Your task to perform on an android device: check battery use Image 0: 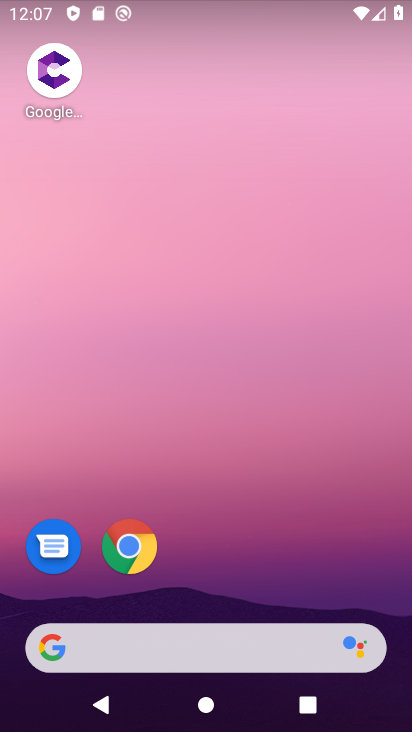
Step 0: drag from (264, 590) to (209, 3)
Your task to perform on an android device: check battery use Image 1: 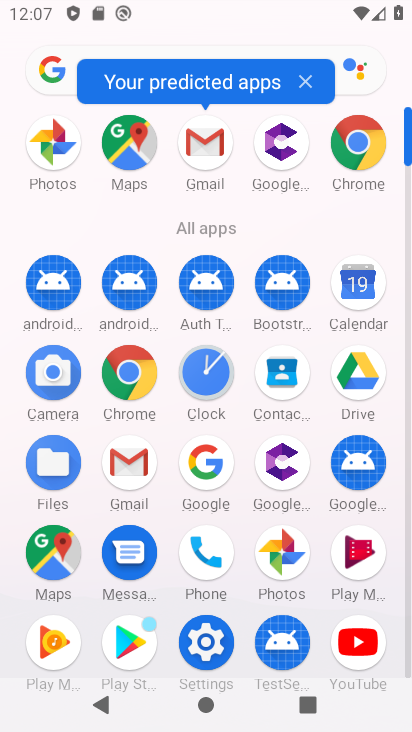
Step 1: click (201, 634)
Your task to perform on an android device: check battery use Image 2: 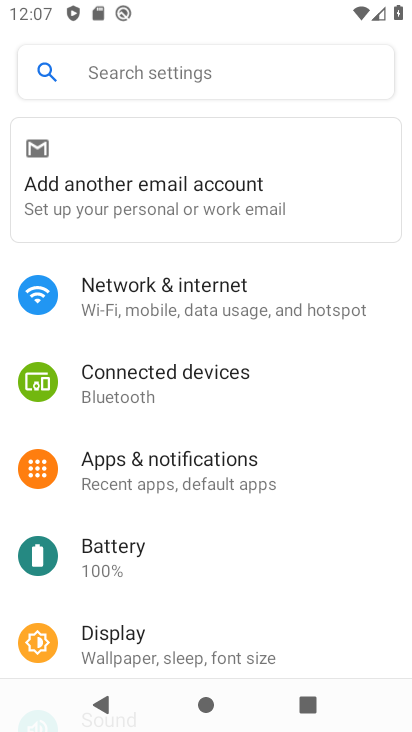
Step 2: click (96, 567)
Your task to perform on an android device: check battery use Image 3: 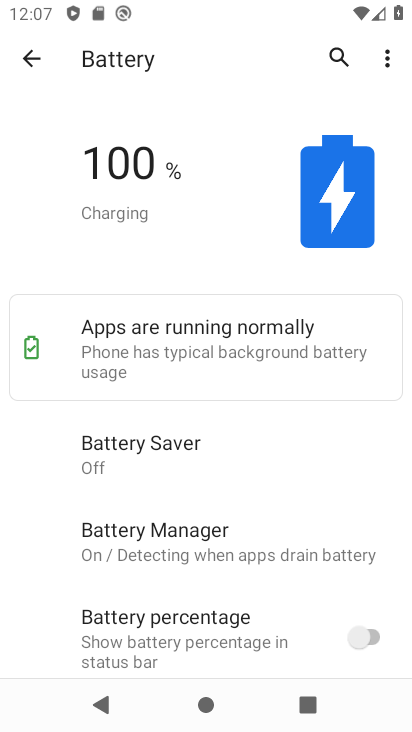
Step 3: click (383, 60)
Your task to perform on an android device: check battery use Image 4: 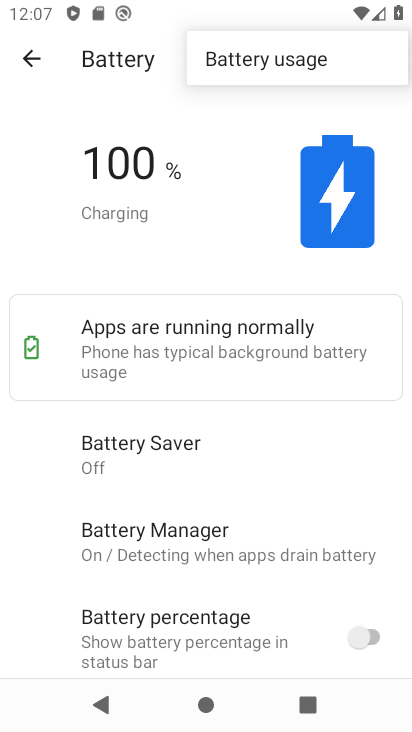
Step 4: click (247, 69)
Your task to perform on an android device: check battery use Image 5: 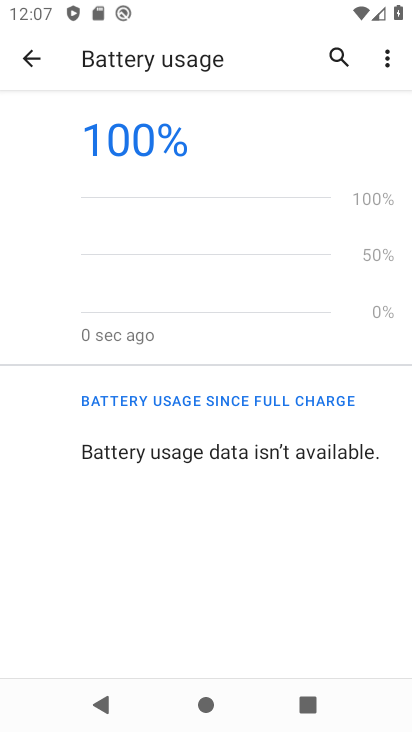
Step 5: task complete